Your task to perform on an android device: see sites visited before in the chrome app Image 0: 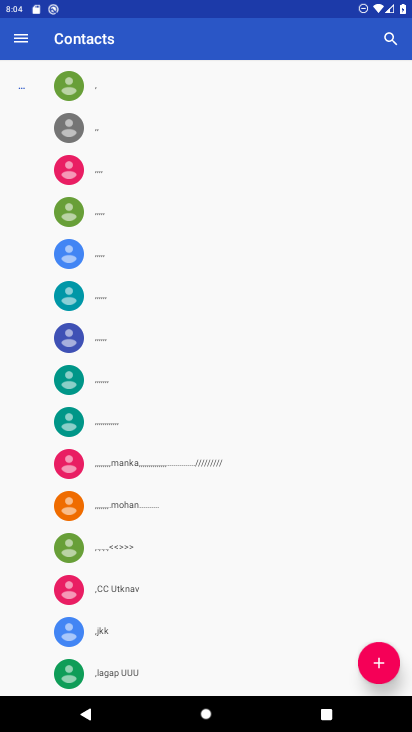
Step 0: press home button
Your task to perform on an android device: see sites visited before in the chrome app Image 1: 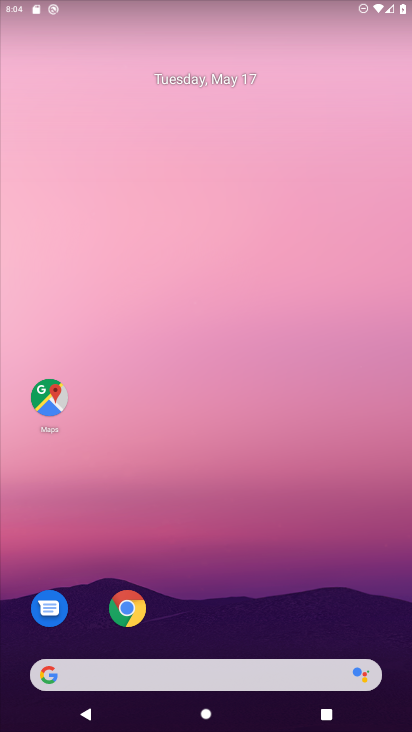
Step 1: click (126, 608)
Your task to perform on an android device: see sites visited before in the chrome app Image 2: 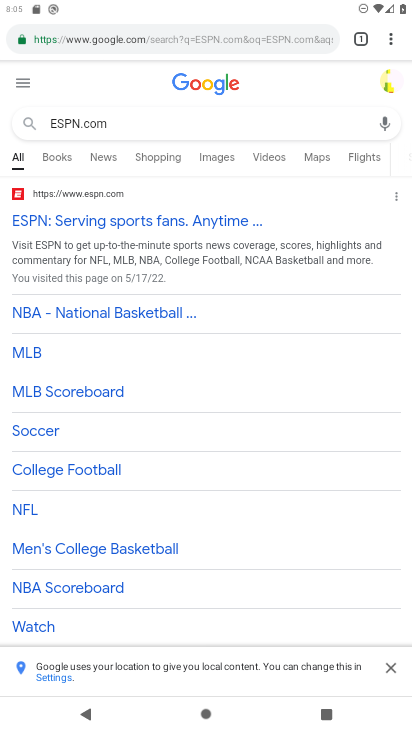
Step 2: click (387, 40)
Your task to perform on an android device: see sites visited before in the chrome app Image 3: 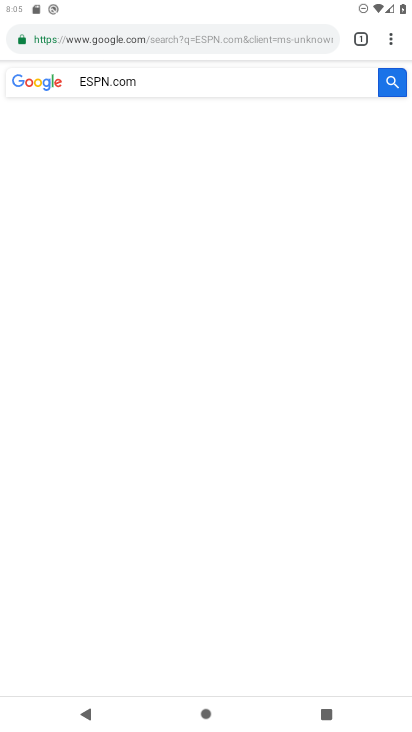
Step 3: click (395, 36)
Your task to perform on an android device: see sites visited before in the chrome app Image 4: 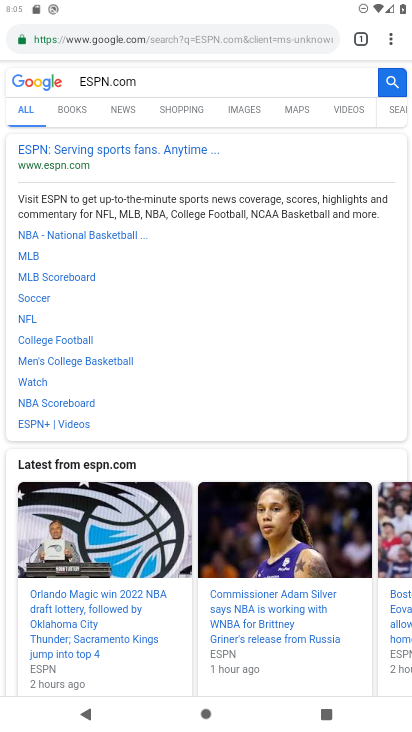
Step 4: click (387, 41)
Your task to perform on an android device: see sites visited before in the chrome app Image 5: 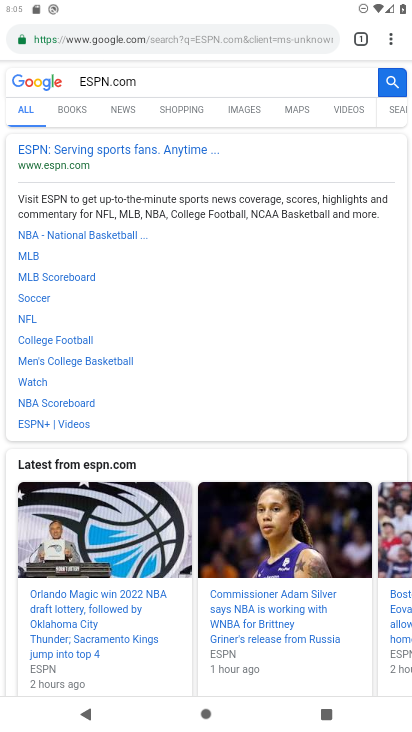
Step 5: click (381, 40)
Your task to perform on an android device: see sites visited before in the chrome app Image 6: 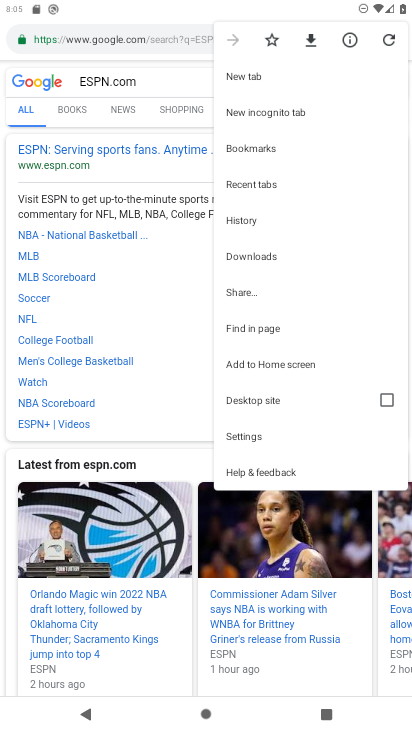
Step 6: click (256, 222)
Your task to perform on an android device: see sites visited before in the chrome app Image 7: 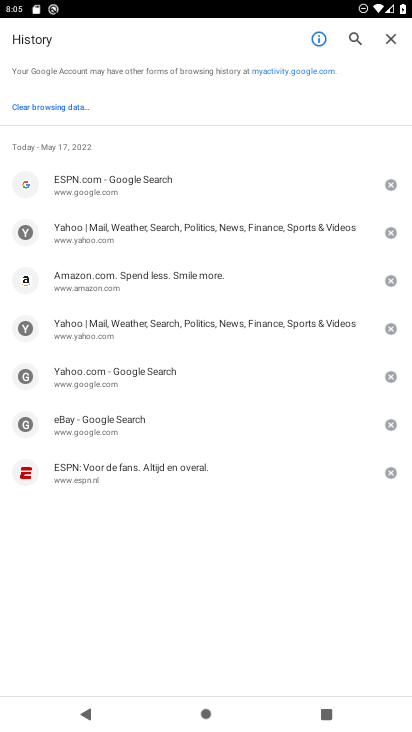
Step 7: task complete